Your task to perform on an android device: open a new tab in the chrome app Image 0: 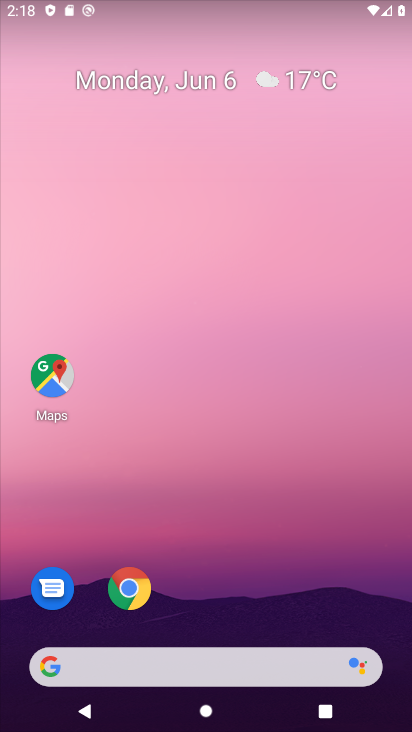
Step 0: click (123, 597)
Your task to perform on an android device: open a new tab in the chrome app Image 1: 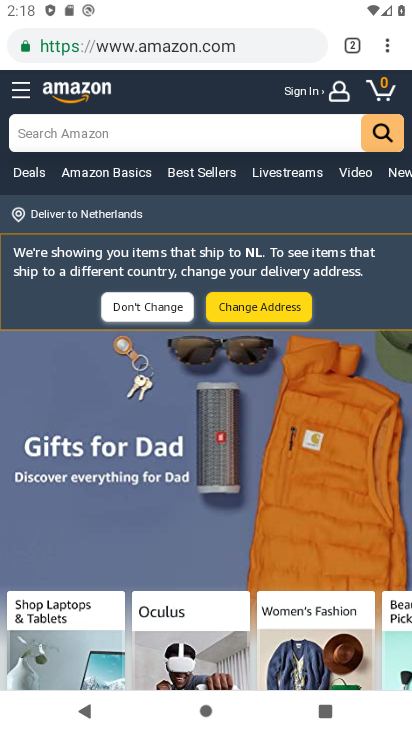
Step 1: task complete